Your task to perform on an android device: turn off translation in the chrome app Image 0: 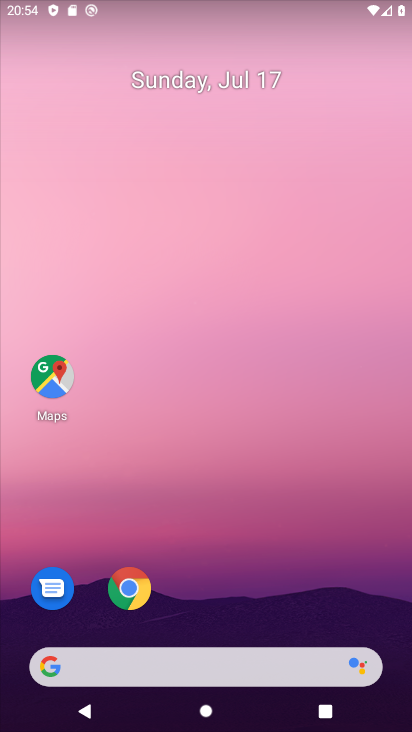
Step 0: press home button
Your task to perform on an android device: turn off translation in the chrome app Image 1: 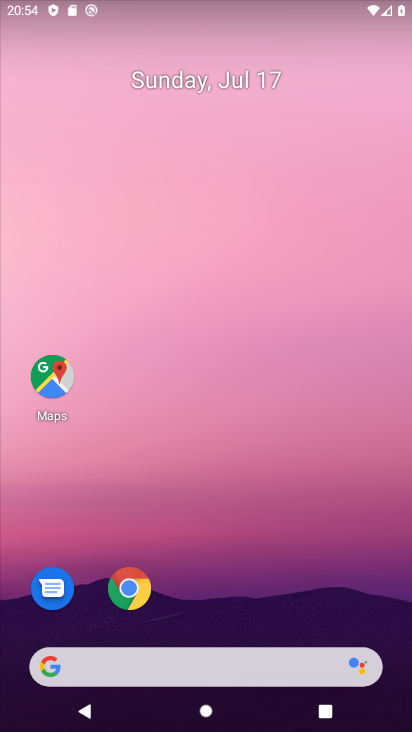
Step 1: drag from (313, 566) to (361, 128)
Your task to perform on an android device: turn off translation in the chrome app Image 2: 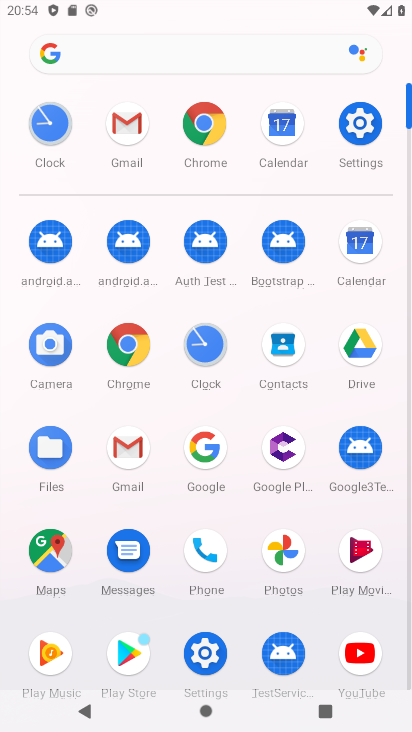
Step 2: click (175, 119)
Your task to perform on an android device: turn off translation in the chrome app Image 3: 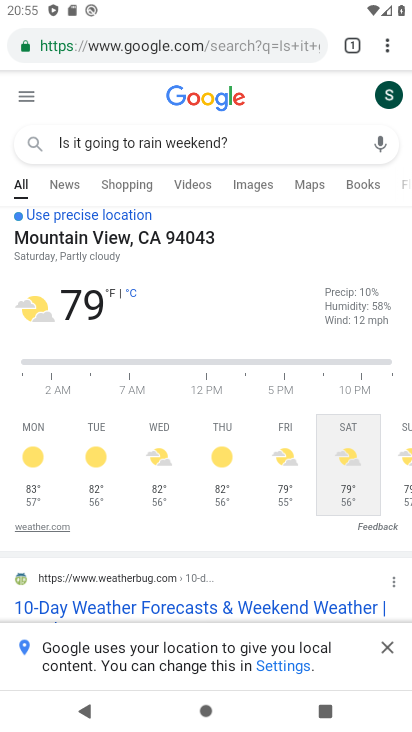
Step 3: drag from (386, 35) to (252, 490)
Your task to perform on an android device: turn off translation in the chrome app Image 4: 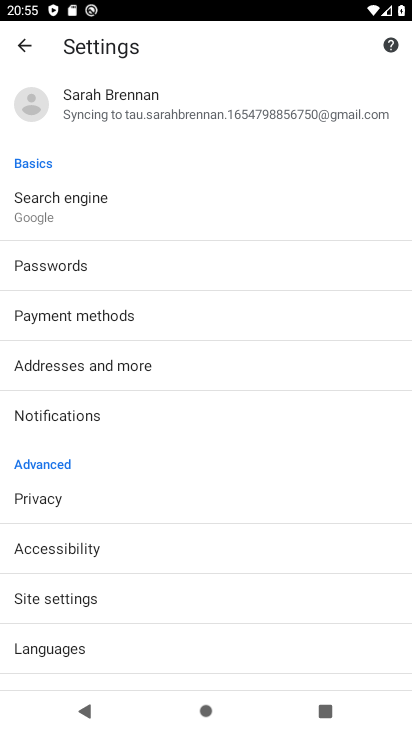
Step 4: click (84, 635)
Your task to perform on an android device: turn off translation in the chrome app Image 5: 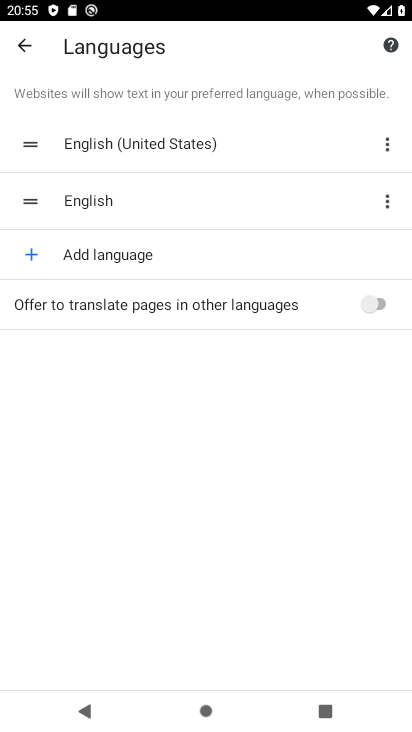
Step 5: task complete